Your task to perform on an android device: open the mobile data screen to see how much data has been used Image 0: 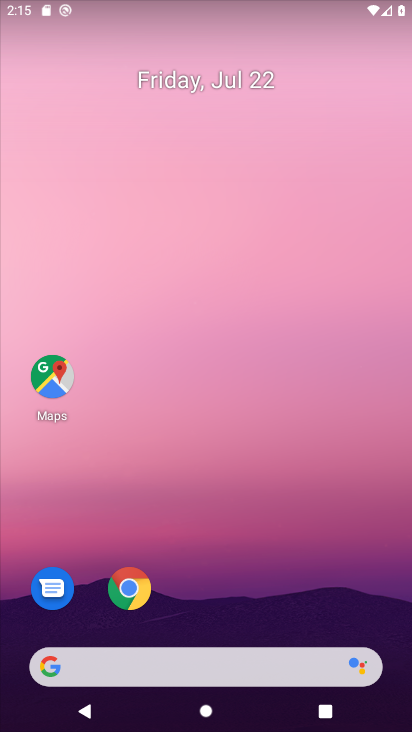
Step 0: drag from (185, 361) to (205, 233)
Your task to perform on an android device: open the mobile data screen to see how much data has been used Image 1: 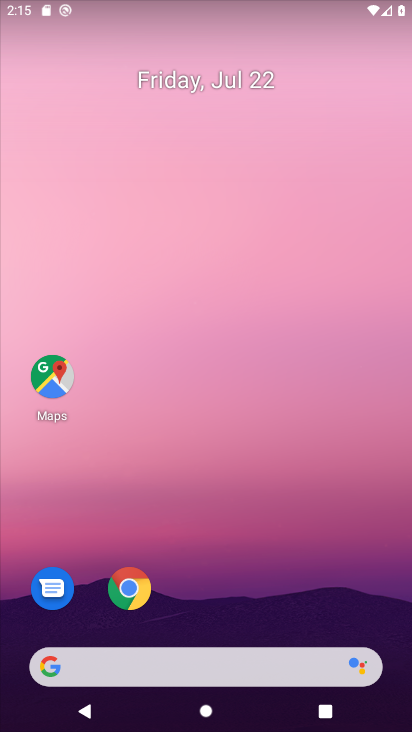
Step 1: drag from (201, 508) to (211, 243)
Your task to perform on an android device: open the mobile data screen to see how much data has been used Image 2: 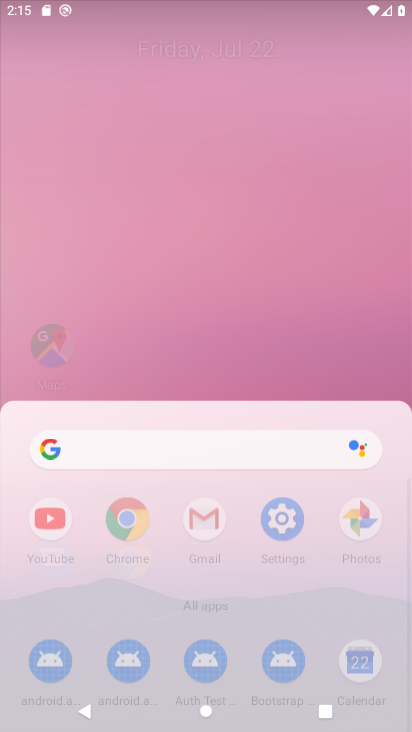
Step 2: drag from (188, 411) to (176, 70)
Your task to perform on an android device: open the mobile data screen to see how much data has been used Image 3: 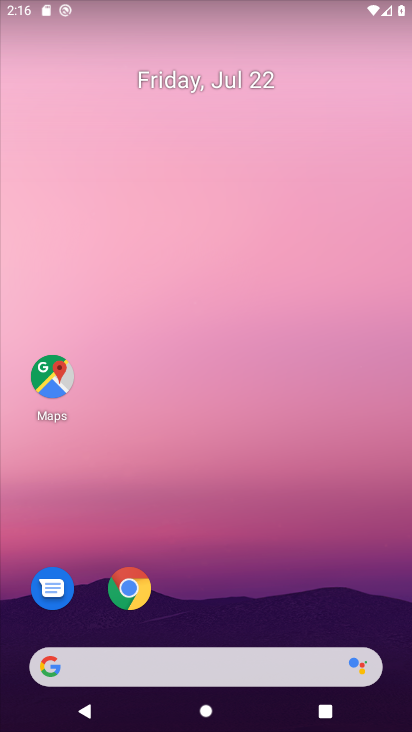
Step 3: click (186, 94)
Your task to perform on an android device: open the mobile data screen to see how much data has been used Image 4: 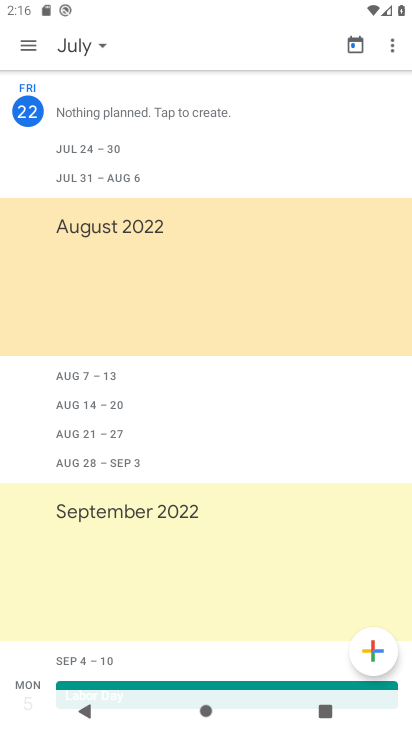
Step 4: press back button
Your task to perform on an android device: open the mobile data screen to see how much data has been used Image 5: 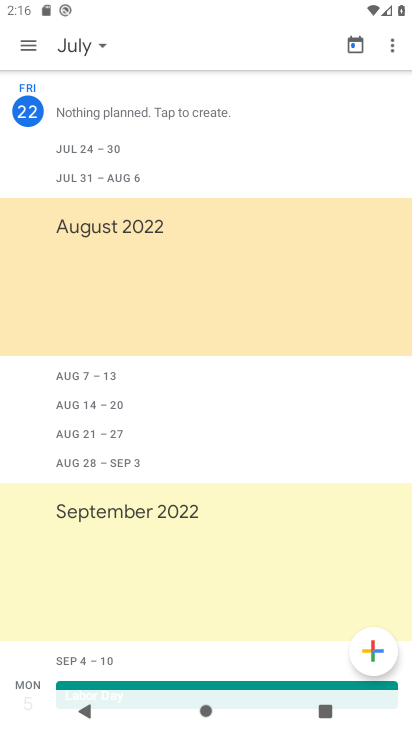
Step 5: press back button
Your task to perform on an android device: open the mobile data screen to see how much data has been used Image 6: 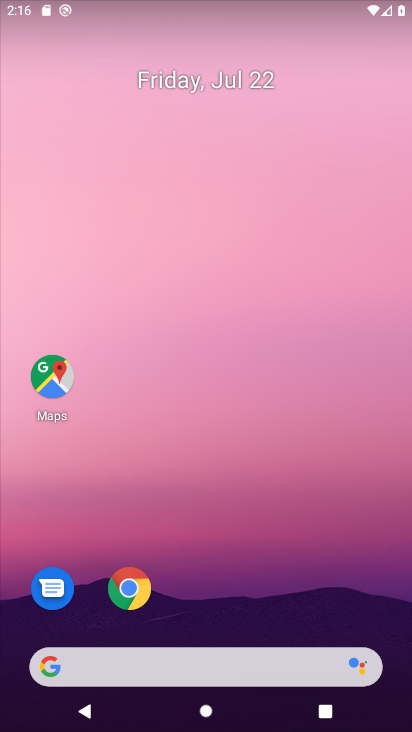
Step 6: drag from (229, 379) to (216, 223)
Your task to perform on an android device: open the mobile data screen to see how much data has been used Image 7: 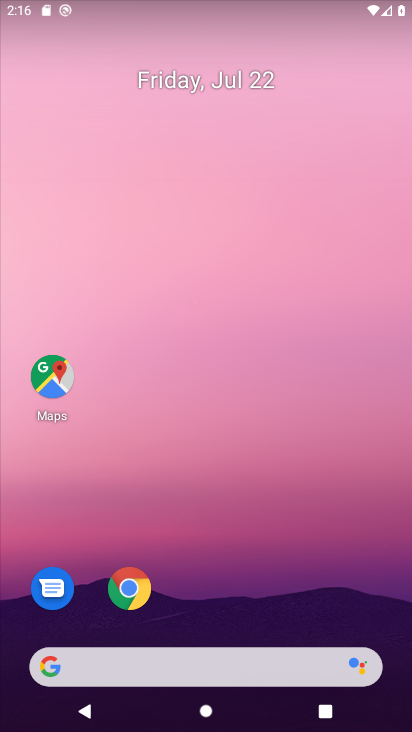
Step 7: drag from (227, 491) to (211, 97)
Your task to perform on an android device: open the mobile data screen to see how much data has been used Image 8: 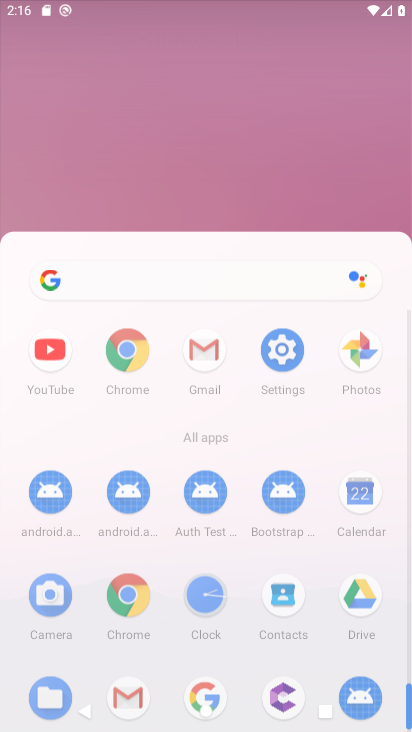
Step 8: drag from (180, 436) to (186, 170)
Your task to perform on an android device: open the mobile data screen to see how much data has been used Image 9: 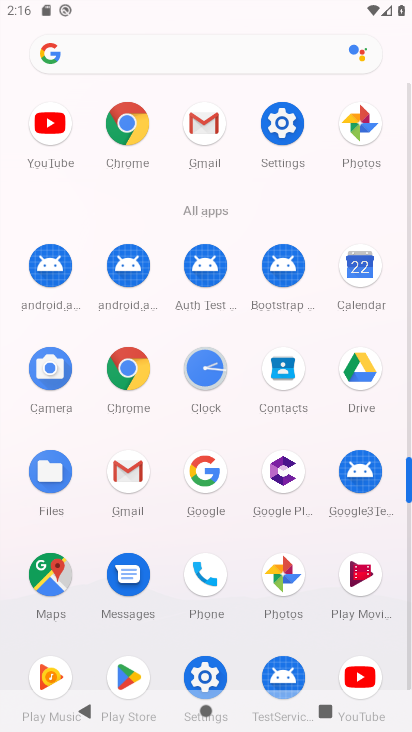
Step 9: click (140, 123)
Your task to perform on an android device: open the mobile data screen to see how much data has been used Image 10: 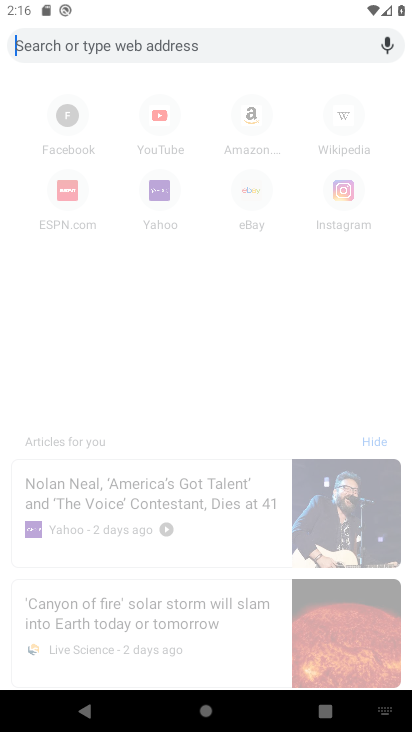
Step 10: press back button
Your task to perform on an android device: open the mobile data screen to see how much data has been used Image 11: 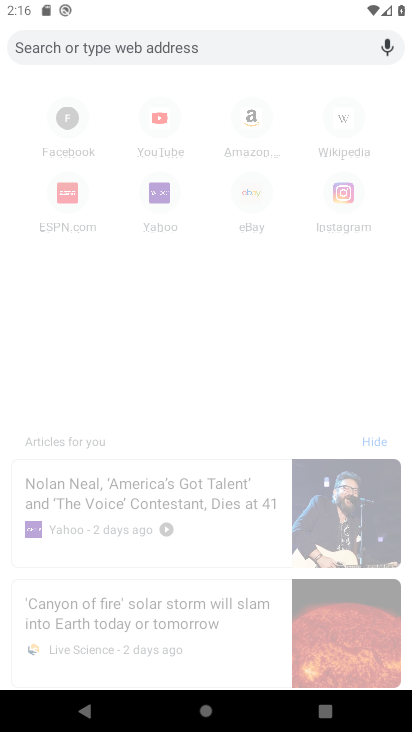
Step 11: press back button
Your task to perform on an android device: open the mobile data screen to see how much data has been used Image 12: 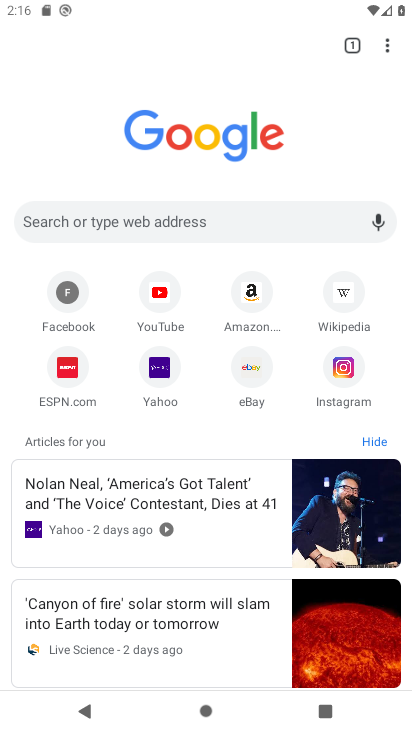
Step 12: press back button
Your task to perform on an android device: open the mobile data screen to see how much data has been used Image 13: 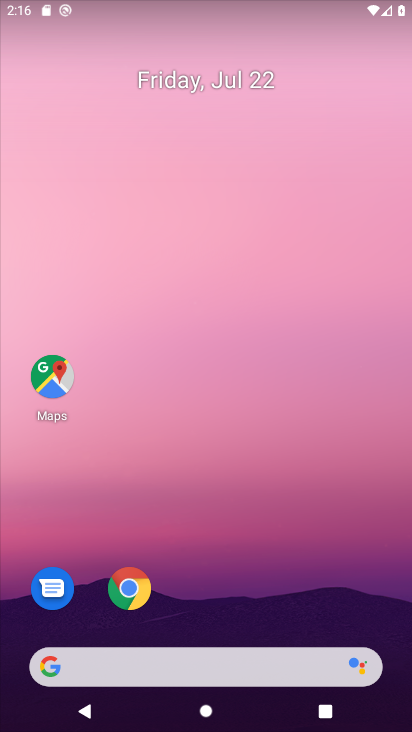
Step 13: press home button
Your task to perform on an android device: open the mobile data screen to see how much data has been used Image 14: 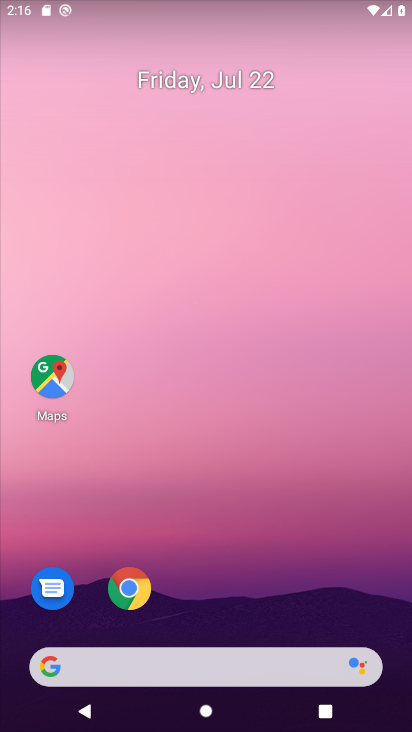
Step 14: press home button
Your task to perform on an android device: open the mobile data screen to see how much data has been used Image 15: 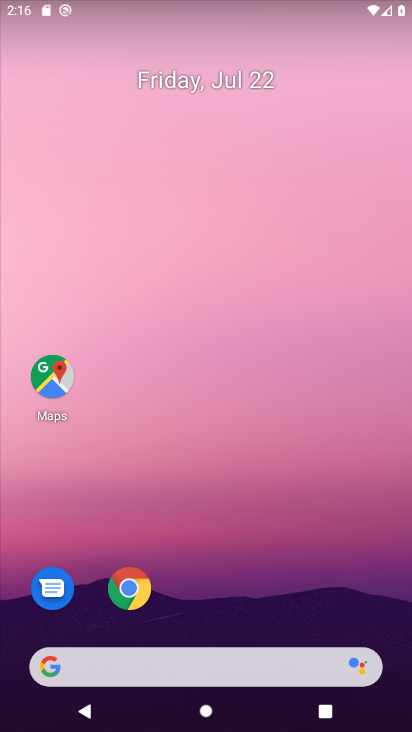
Step 15: drag from (244, 543) to (217, 316)
Your task to perform on an android device: open the mobile data screen to see how much data has been used Image 16: 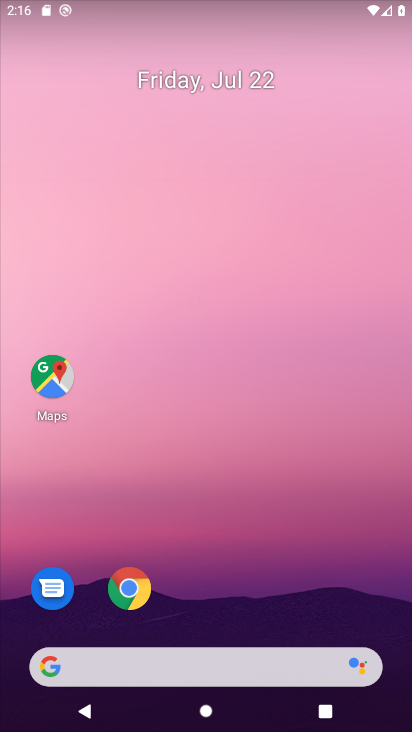
Step 16: drag from (234, 607) to (214, 234)
Your task to perform on an android device: open the mobile data screen to see how much data has been used Image 17: 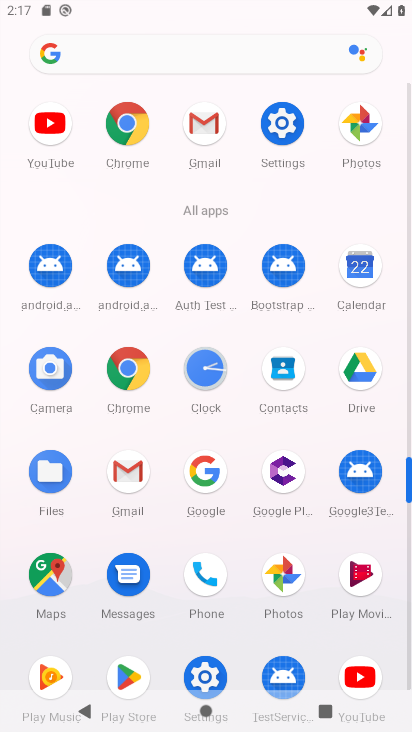
Step 17: click (280, 125)
Your task to perform on an android device: open the mobile data screen to see how much data has been used Image 18: 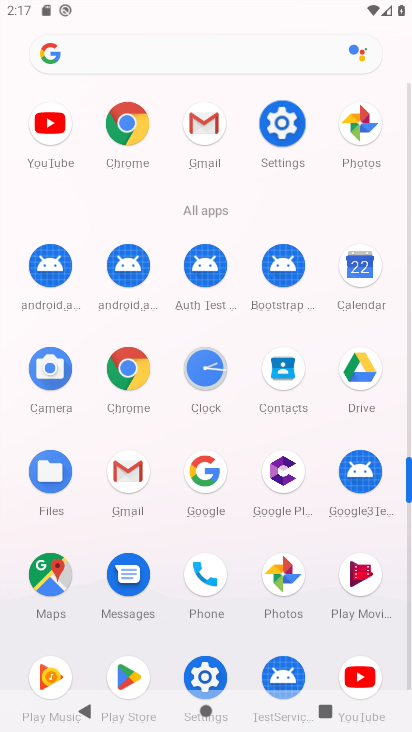
Step 18: click (281, 123)
Your task to perform on an android device: open the mobile data screen to see how much data has been used Image 19: 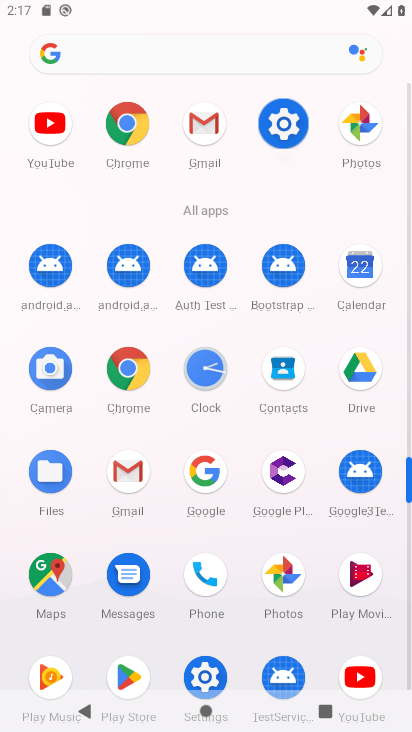
Step 19: click (281, 123)
Your task to perform on an android device: open the mobile data screen to see how much data has been used Image 20: 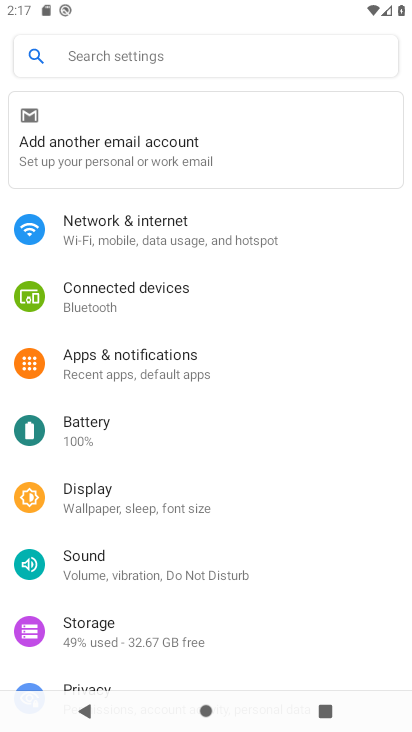
Step 20: click (135, 230)
Your task to perform on an android device: open the mobile data screen to see how much data has been used Image 21: 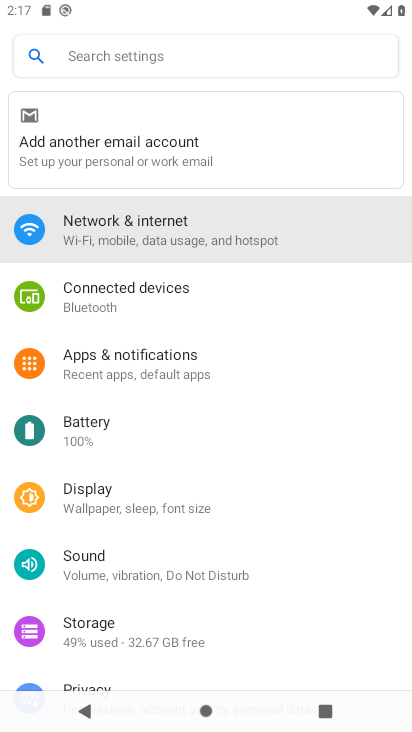
Step 21: click (136, 231)
Your task to perform on an android device: open the mobile data screen to see how much data has been used Image 22: 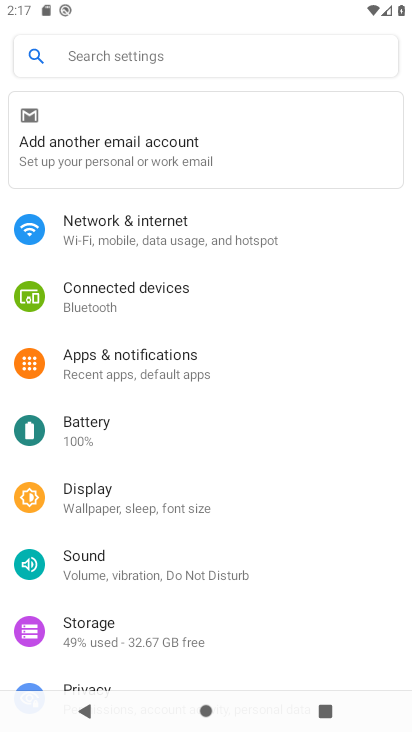
Step 22: click (137, 231)
Your task to perform on an android device: open the mobile data screen to see how much data has been used Image 23: 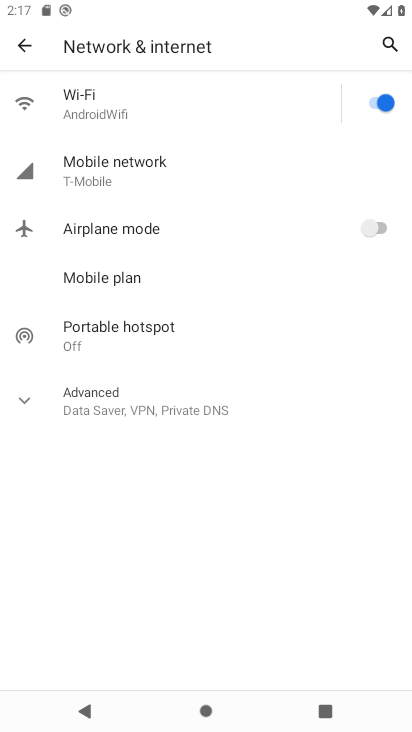
Step 23: click (138, 231)
Your task to perform on an android device: open the mobile data screen to see how much data has been used Image 24: 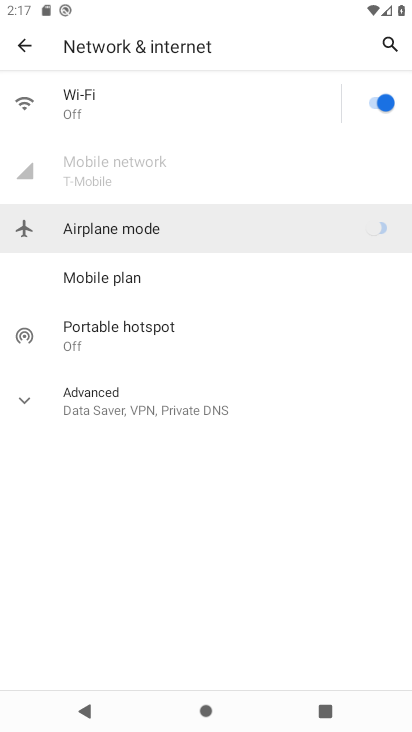
Step 24: click (138, 231)
Your task to perform on an android device: open the mobile data screen to see how much data has been used Image 25: 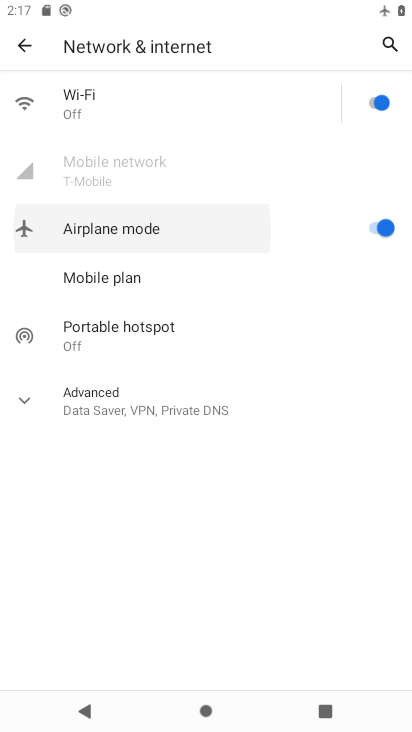
Step 25: click (138, 231)
Your task to perform on an android device: open the mobile data screen to see how much data has been used Image 26: 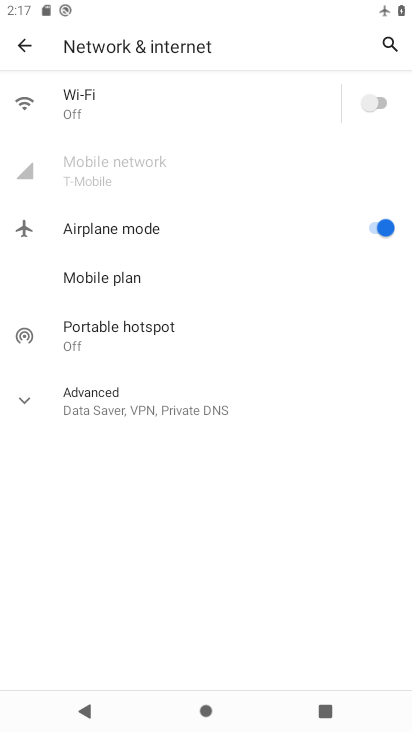
Step 26: click (363, 97)
Your task to perform on an android device: open the mobile data screen to see how much data has been used Image 27: 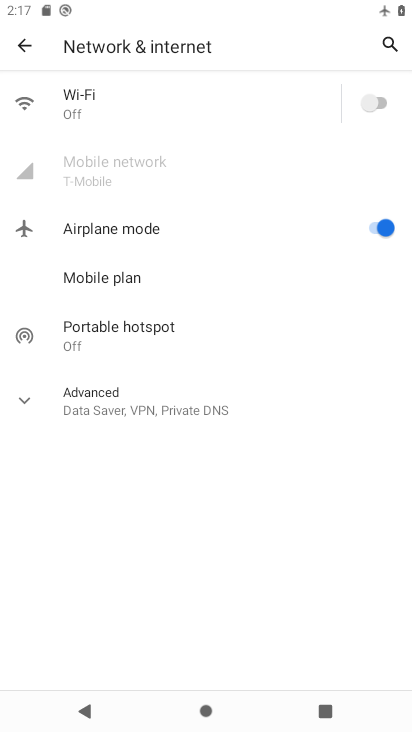
Step 27: click (363, 96)
Your task to perform on an android device: open the mobile data screen to see how much data has been used Image 28: 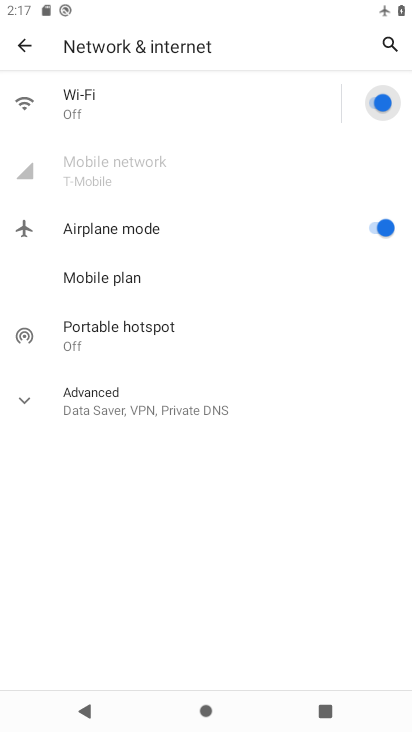
Step 28: click (363, 96)
Your task to perform on an android device: open the mobile data screen to see how much data has been used Image 29: 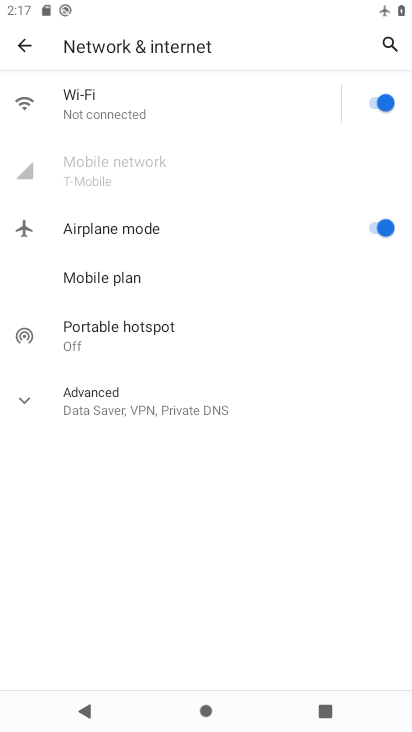
Step 29: click (386, 230)
Your task to perform on an android device: open the mobile data screen to see how much data has been used Image 30: 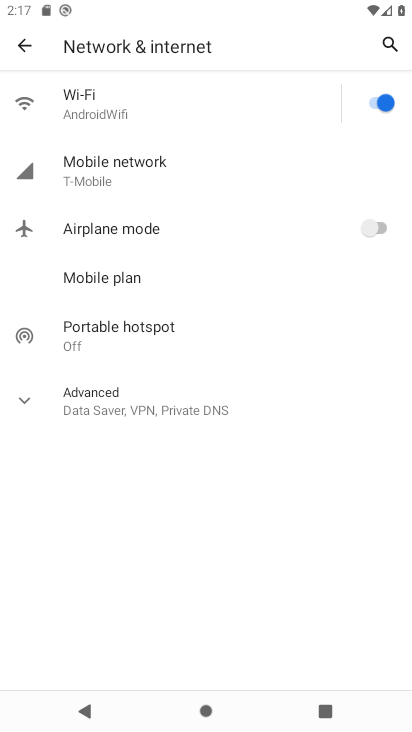
Step 30: task complete